Your task to perform on an android device: Show the shopping cart on target.com. Search for usb-c to usb-b on target.com, select the first entry, and add it to the cart. Image 0: 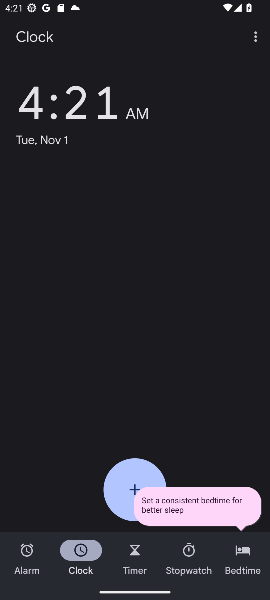
Step 0: click (203, 402)
Your task to perform on an android device: Show the shopping cart on target.com. Search for usb-c to usb-b on target.com, select the first entry, and add it to the cart. Image 1: 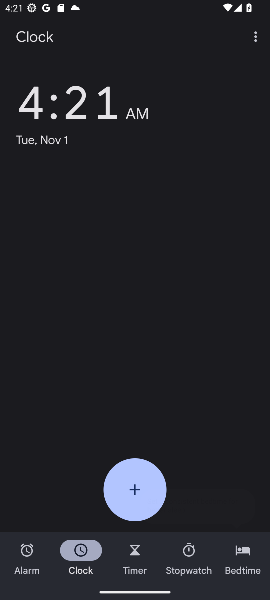
Step 1: press home button
Your task to perform on an android device: Show the shopping cart on target.com. Search for usb-c to usb-b on target.com, select the first entry, and add it to the cart. Image 2: 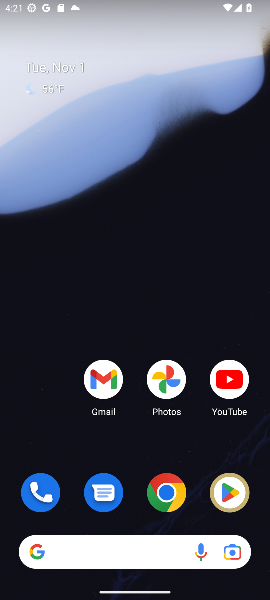
Step 2: click (162, 490)
Your task to perform on an android device: Show the shopping cart on target.com. Search for usb-c to usb-b on target.com, select the first entry, and add it to the cart. Image 3: 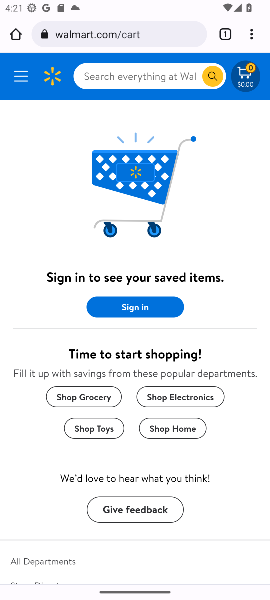
Step 3: click (119, 25)
Your task to perform on an android device: Show the shopping cart on target.com. Search for usb-c to usb-b on target.com, select the first entry, and add it to the cart. Image 4: 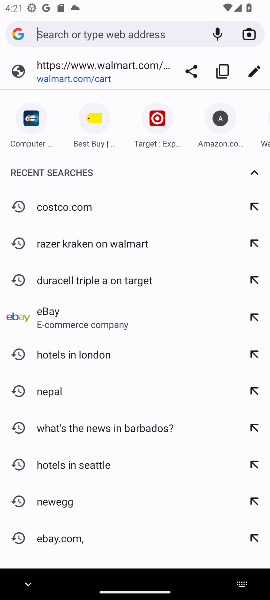
Step 4: click (155, 114)
Your task to perform on an android device: Show the shopping cart on target.com. Search for usb-c to usb-b on target.com, select the first entry, and add it to the cart. Image 5: 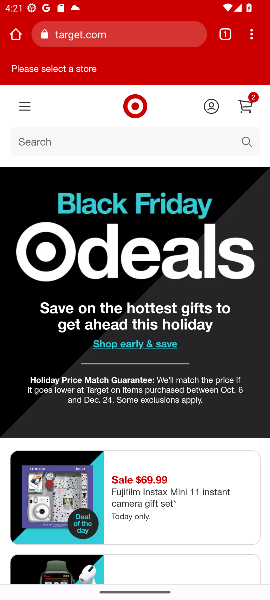
Step 5: click (120, 145)
Your task to perform on an android device: Show the shopping cart on target.com. Search for usb-c to usb-b on target.com, select the first entry, and add it to the cart. Image 6: 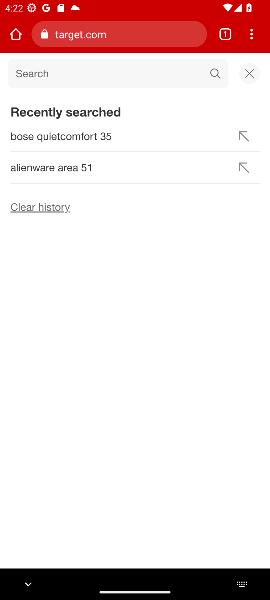
Step 6: type "usb-c to usb-b "
Your task to perform on an android device: Show the shopping cart on target.com. Search for usb-c to usb-b on target.com, select the first entry, and add it to the cart. Image 7: 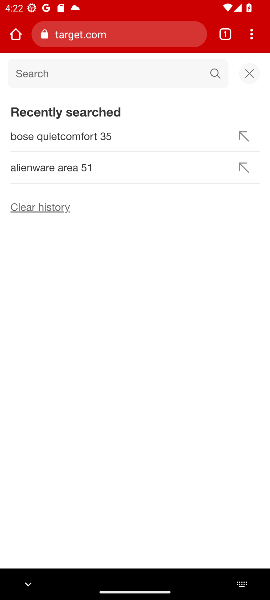
Step 7: type ""
Your task to perform on an android device: Show the shopping cart on target.com. Search for usb-c to usb-b on target.com, select the first entry, and add it to the cart. Image 8: 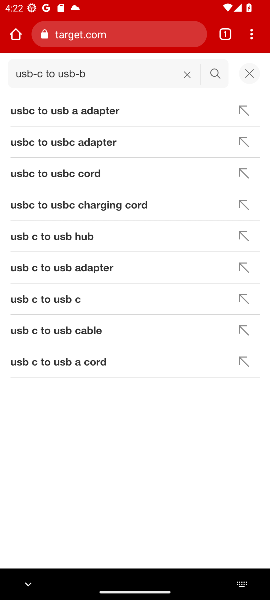
Step 8: press enter
Your task to perform on an android device: Show the shopping cart on target.com. Search for usb-c to usb-b on target.com, select the first entry, and add it to the cart. Image 9: 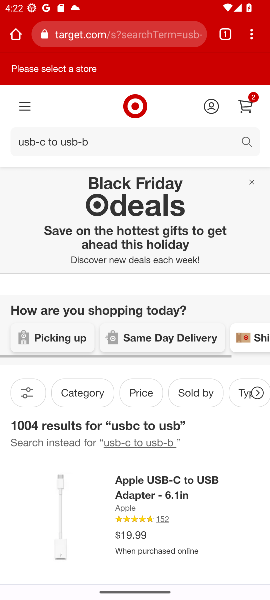
Step 9: drag from (172, 496) to (188, 332)
Your task to perform on an android device: Show the shopping cart on target.com. Search for usb-c to usb-b on target.com, select the first entry, and add it to the cart. Image 10: 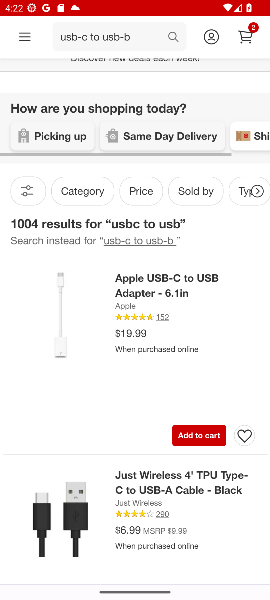
Step 10: click (157, 281)
Your task to perform on an android device: Show the shopping cart on target.com. Search for usb-c to usb-b on target.com, select the first entry, and add it to the cart. Image 11: 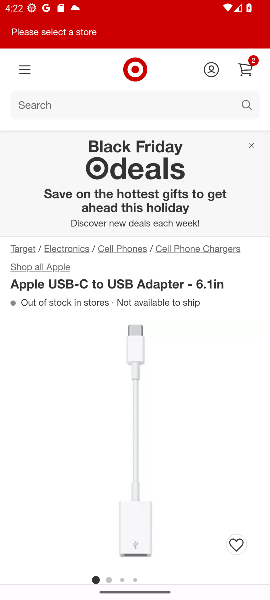
Step 11: drag from (170, 505) to (153, 242)
Your task to perform on an android device: Show the shopping cart on target.com. Search for usb-c to usb-b on target.com, select the first entry, and add it to the cart. Image 12: 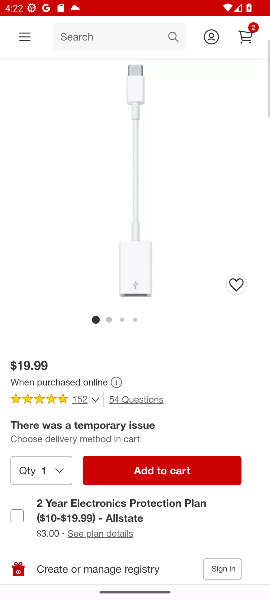
Step 12: drag from (181, 326) to (29, 327)
Your task to perform on an android device: Show the shopping cart on target.com. Search for usb-c to usb-b on target.com, select the first entry, and add it to the cart. Image 13: 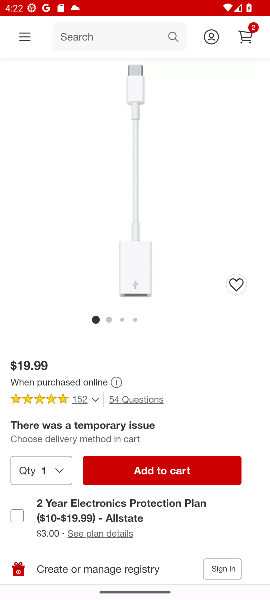
Step 13: drag from (188, 331) to (14, 339)
Your task to perform on an android device: Show the shopping cart on target.com. Search for usb-c to usb-b on target.com, select the first entry, and add it to the cart. Image 14: 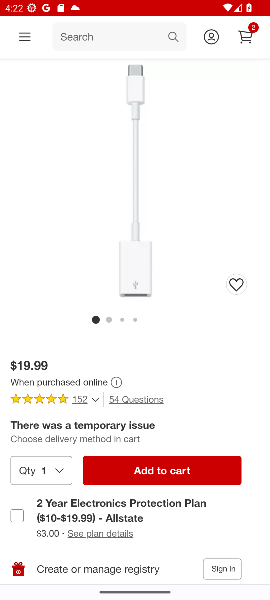
Step 14: drag from (177, 262) to (11, 256)
Your task to perform on an android device: Show the shopping cart on target.com. Search for usb-c to usb-b on target.com, select the first entry, and add it to the cart. Image 15: 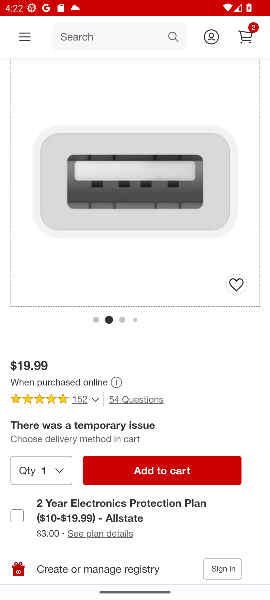
Step 15: drag from (210, 213) to (39, 227)
Your task to perform on an android device: Show the shopping cart on target.com. Search for usb-c to usb-b on target.com, select the first entry, and add it to the cart. Image 16: 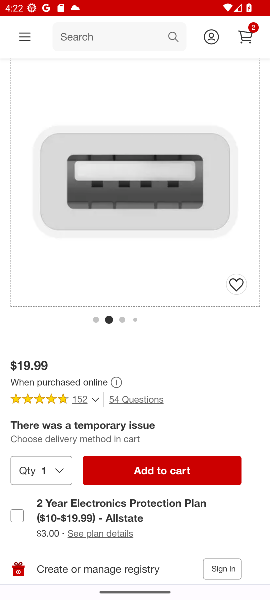
Step 16: drag from (189, 206) to (31, 208)
Your task to perform on an android device: Show the shopping cart on target.com. Search for usb-c to usb-b on target.com, select the first entry, and add it to the cart. Image 17: 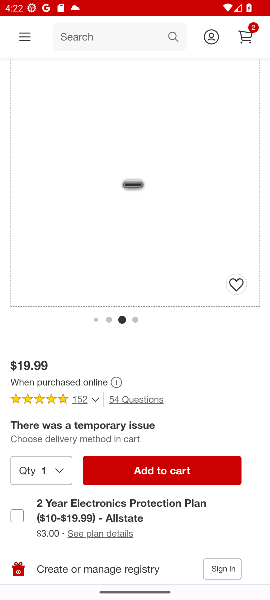
Step 17: drag from (171, 206) to (37, 209)
Your task to perform on an android device: Show the shopping cart on target.com. Search for usb-c to usb-b on target.com, select the first entry, and add it to the cart. Image 18: 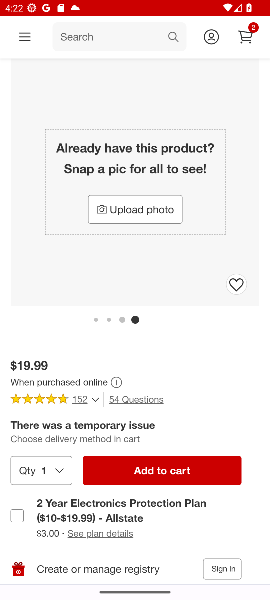
Step 18: drag from (209, 208) to (40, 225)
Your task to perform on an android device: Show the shopping cart on target.com. Search for usb-c to usb-b on target.com, select the first entry, and add it to the cart. Image 19: 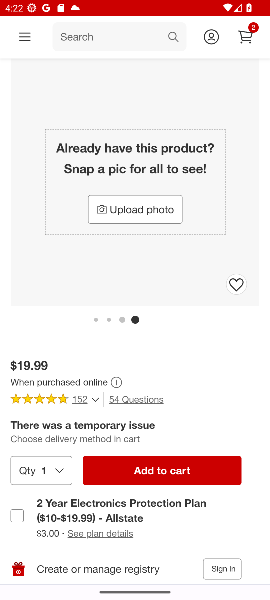
Step 19: drag from (207, 228) to (83, 233)
Your task to perform on an android device: Show the shopping cart on target.com. Search for usb-c to usb-b on target.com, select the first entry, and add it to the cart. Image 20: 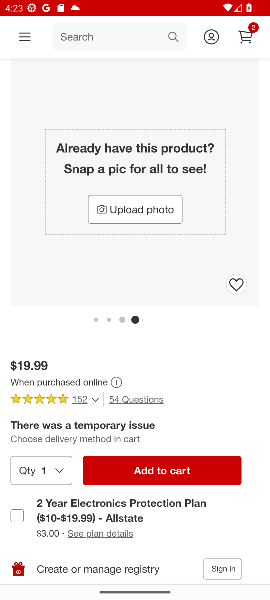
Step 20: click (147, 468)
Your task to perform on an android device: Show the shopping cart on target.com. Search for usb-c to usb-b on target.com, select the first entry, and add it to the cart. Image 21: 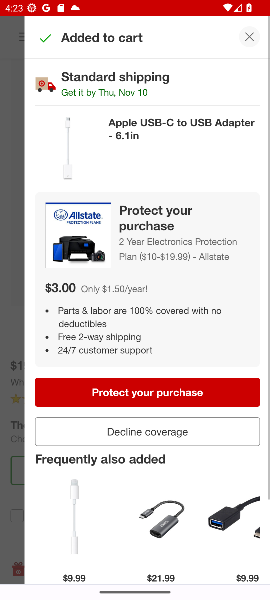
Step 21: click (141, 421)
Your task to perform on an android device: Show the shopping cart on target.com. Search for usb-c to usb-b on target.com, select the first entry, and add it to the cart. Image 22: 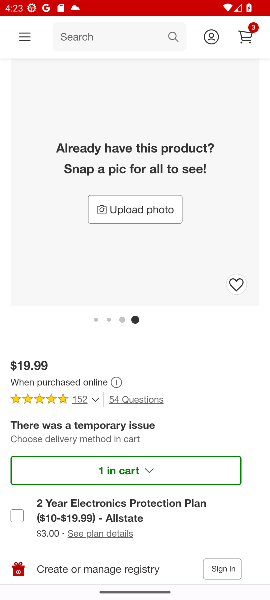
Step 22: click (245, 40)
Your task to perform on an android device: Show the shopping cart on target.com. Search for usb-c to usb-b on target.com, select the first entry, and add it to the cart. Image 23: 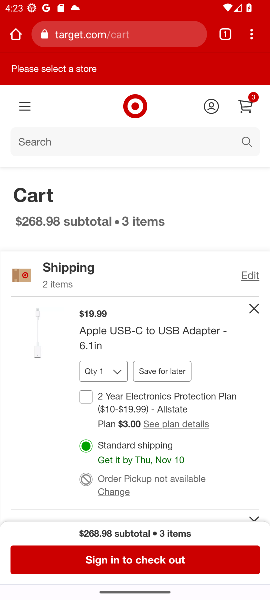
Step 23: drag from (190, 501) to (162, 198)
Your task to perform on an android device: Show the shopping cart on target.com. Search for usb-c to usb-b on target.com, select the first entry, and add it to the cart. Image 24: 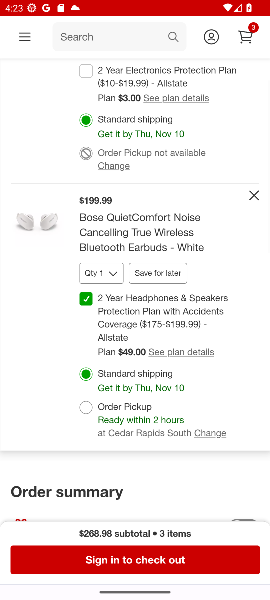
Step 24: drag from (150, 211) to (162, 152)
Your task to perform on an android device: Show the shopping cart on target.com. Search for usb-c to usb-b on target.com, select the first entry, and add it to the cart. Image 25: 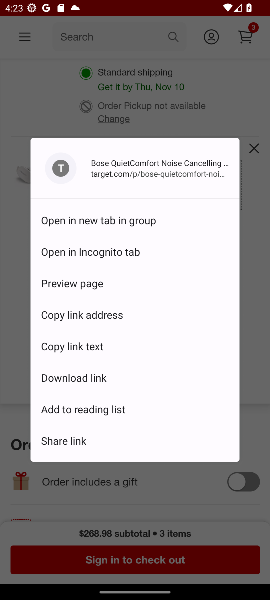
Step 25: click (198, 160)
Your task to perform on an android device: Show the shopping cart on target.com. Search for usb-c to usb-b on target.com, select the first entry, and add it to the cart. Image 26: 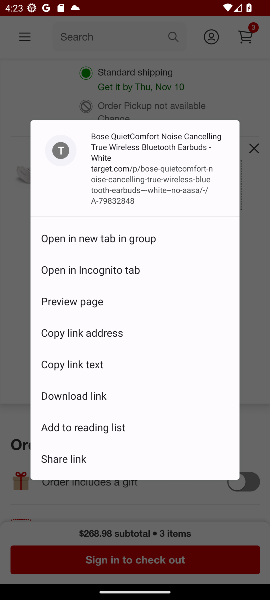
Step 26: click (184, 184)
Your task to perform on an android device: Show the shopping cart on target.com. Search for usb-c to usb-b on target.com, select the first entry, and add it to the cart. Image 27: 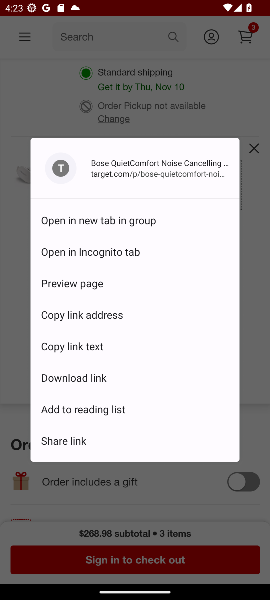
Step 27: click (172, 207)
Your task to perform on an android device: Show the shopping cart on target.com. Search for usb-c to usb-b on target.com, select the first entry, and add it to the cart. Image 28: 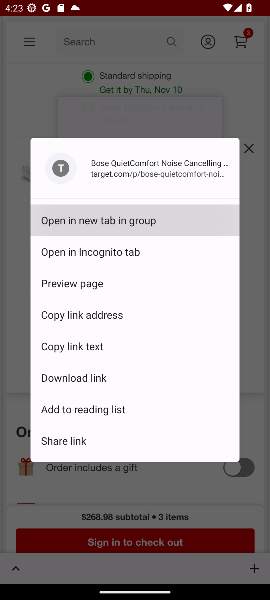
Step 28: click (192, 183)
Your task to perform on an android device: Show the shopping cart on target.com. Search for usb-c to usb-b on target.com, select the first entry, and add it to the cart. Image 29: 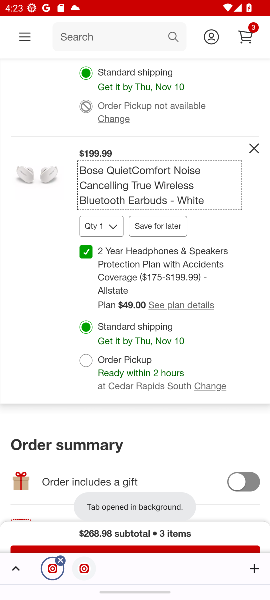
Step 29: click (243, 284)
Your task to perform on an android device: Show the shopping cart on target.com. Search for usb-c to usb-b on target.com, select the first entry, and add it to the cart. Image 30: 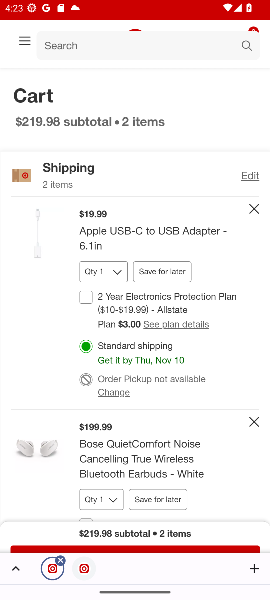
Step 30: click (246, 300)
Your task to perform on an android device: Show the shopping cart on target.com. Search for usb-c to usb-b on target.com, select the first entry, and add it to the cart. Image 31: 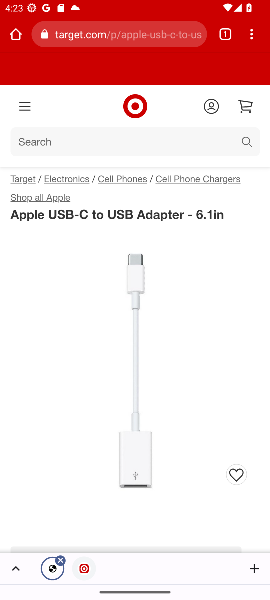
Step 31: task complete